Your task to perform on an android device: toggle sleep mode Image 0: 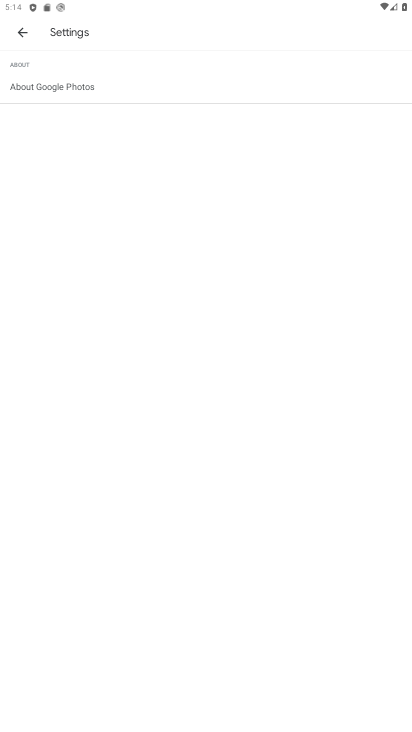
Step 0: press home button
Your task to perform on an android device: toggle sleep mode Image 1: 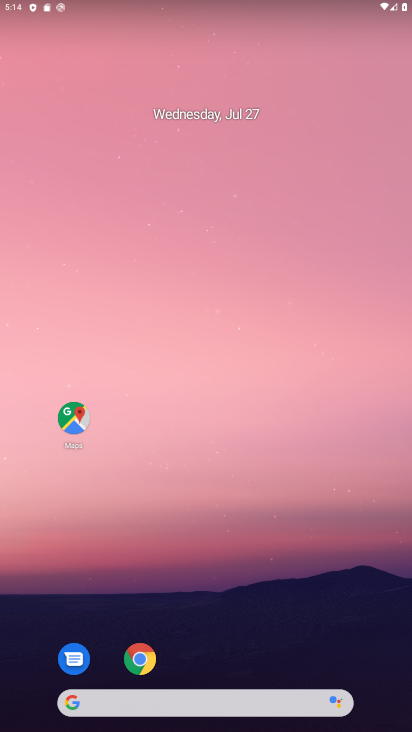
Step 1: drag from (232, 633) to (220, 122)
Your task to perform on an android device: toggle sleep mode Image 2: 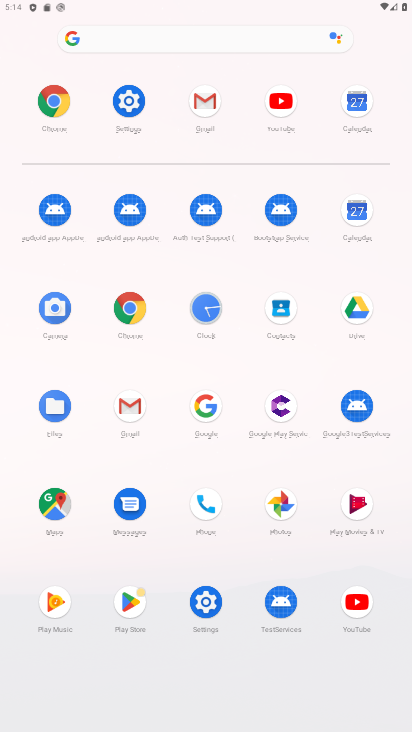
Step 2: click (204, 587)
Your task to perform on an android device: toggle sleep mode Image 3: 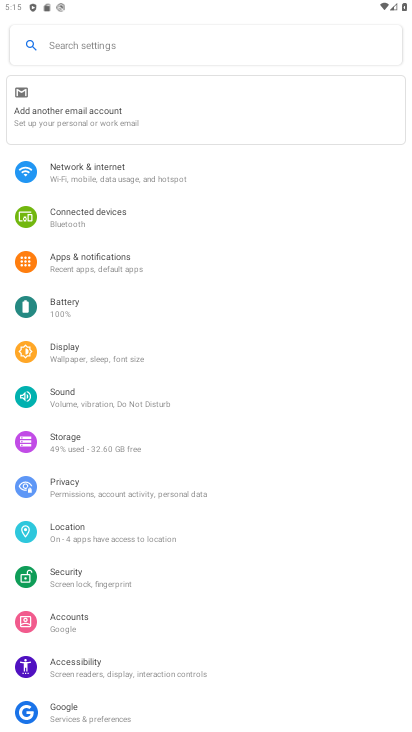
Step 3: click (122, 349)
Your task to perform on an android device: toggle sleep mode Image 4: 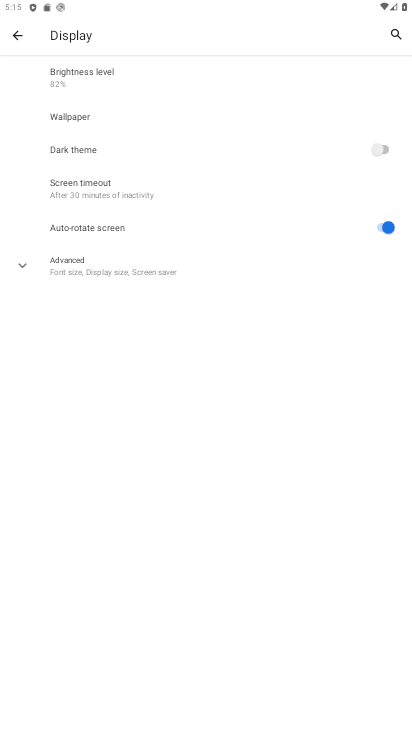
Step 4: click (98, 193)
Your task to perform on an android device: toggle sleep mode Image 5: 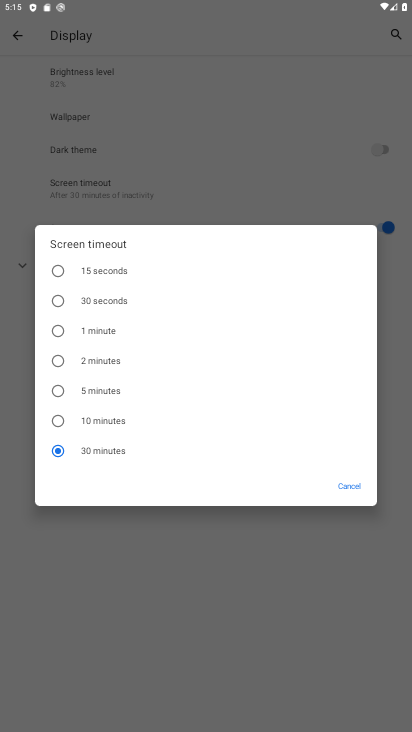
Step 5: click (89, 418)
Your task to perform on an android device: toggle sleep mode Image 6: 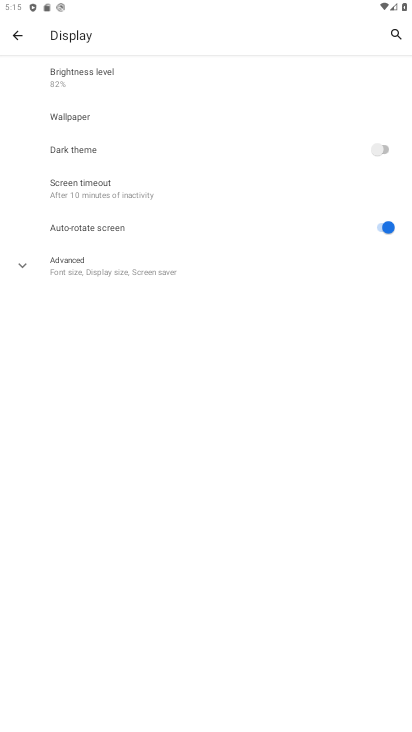
Step 6: task complete